Your task to perform on an android device: toggle sleep mode Image 0: 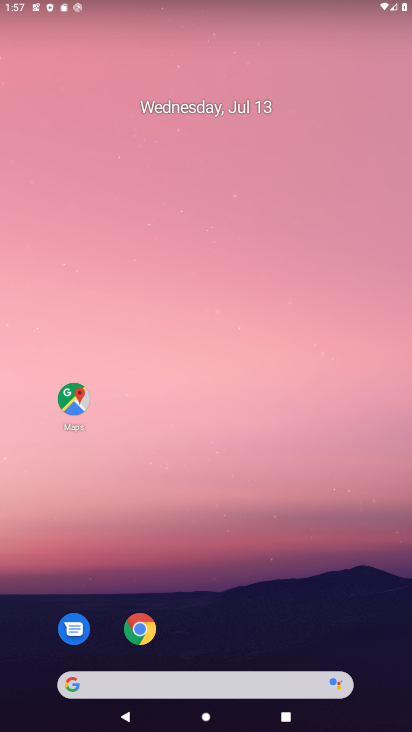
Step 0: drag from (216, 676) to (301, 146)
Your task to perform on an android device: toggle sleep mode Image 1: 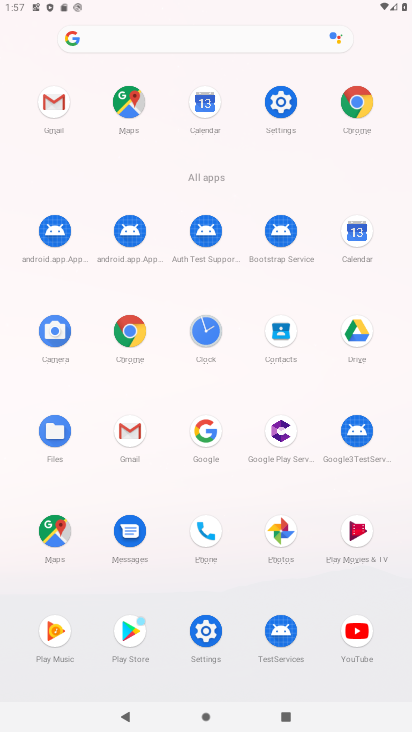
Step 1: click (282, 97)
Your task to perform on an android device: toggle sleep mode Image 2: 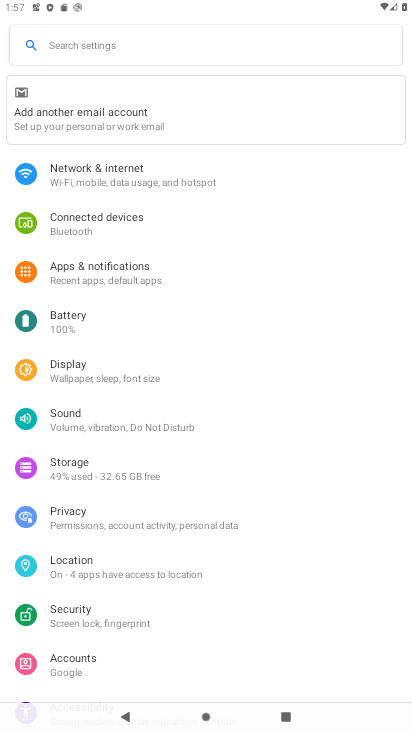
Step 2: click (79, 379)
Your task to perform on an android device: toggle sleep mode Image 3: 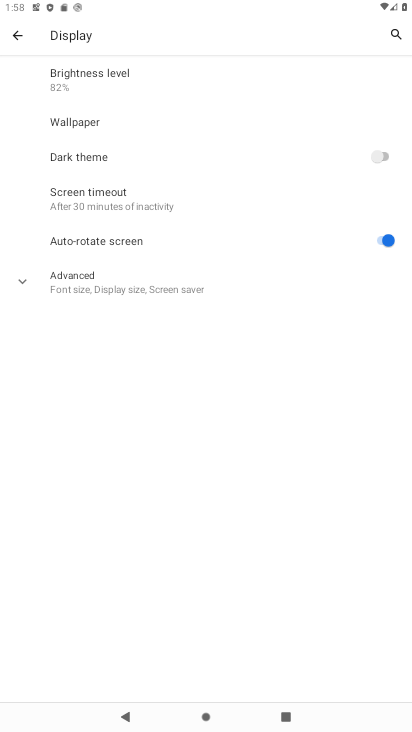
Step 3: click (108, 213)
Your task to perform on an android device: toggle sleep mode Image 4: 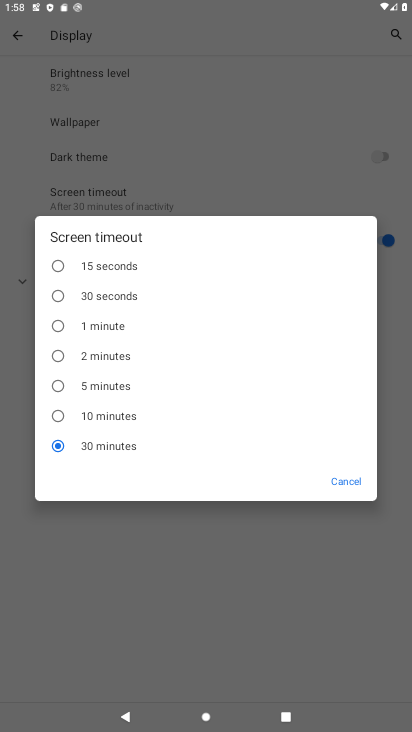
Step 4: click (337, 476)
Your task to perform on an android device: toggle sleep mode Image 5: 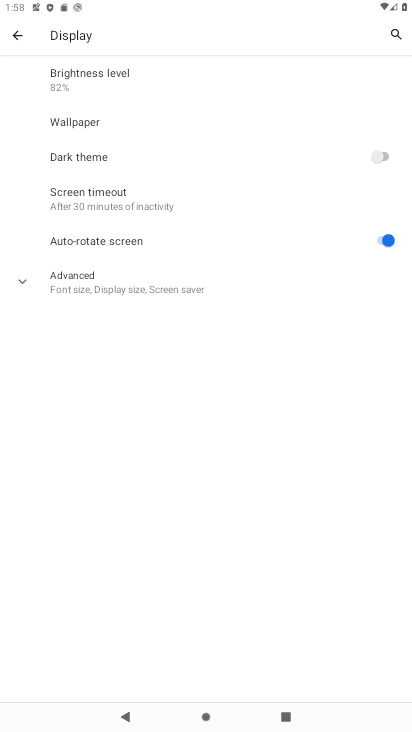
Step 5: task complete